Your task to perform on an android device: change timer sound Image 0: 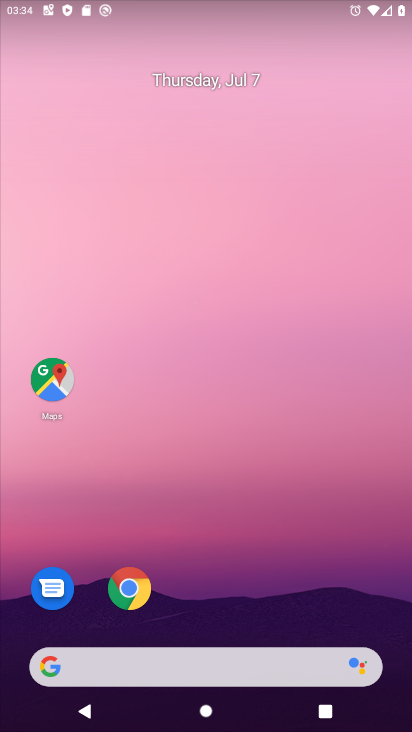
Step 0: drag from (189, 651) to (189, 296)
Your task to perform on an android device: change timer sound Image 1: 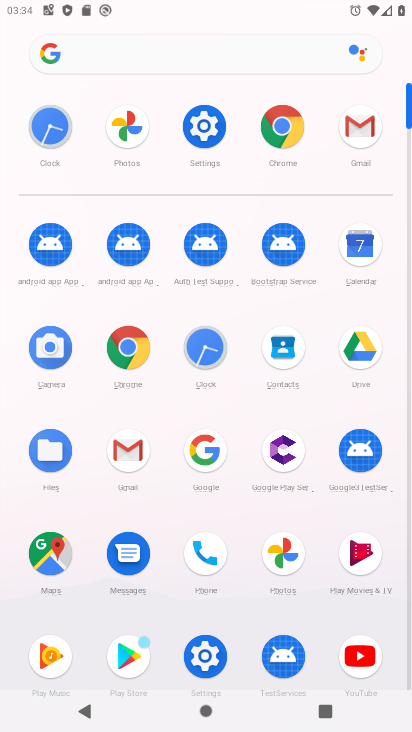
Step 1: click (207, 341)
Your task to perform on an android device: change timer sound Image 2: 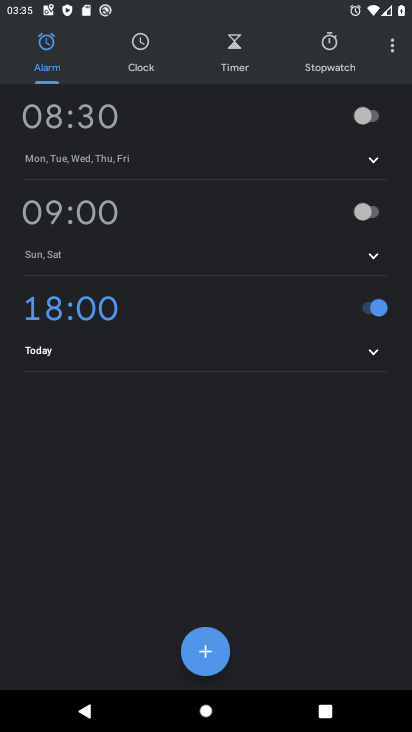
Step 2: click (389, 49)
Your task to perform on an android device: change timer sound Image 3: 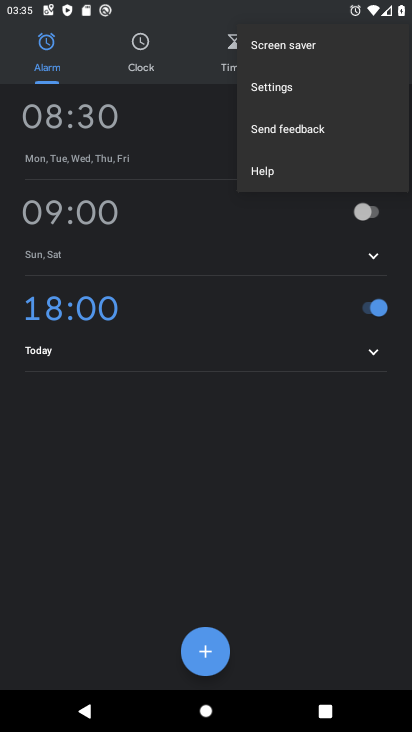
Step 3: click (288, 90)
Your task to perform on an android device: change timer sound Image 4: 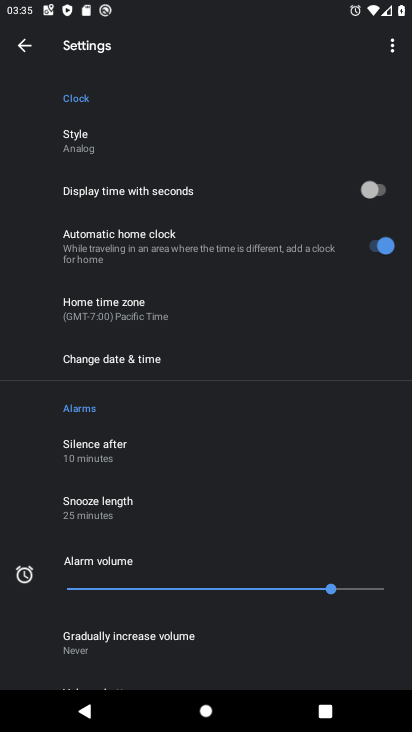
Step 4: drag from (101, 636) to (131, 249)
Your task to perform on an android device: change timer sound Image 5: 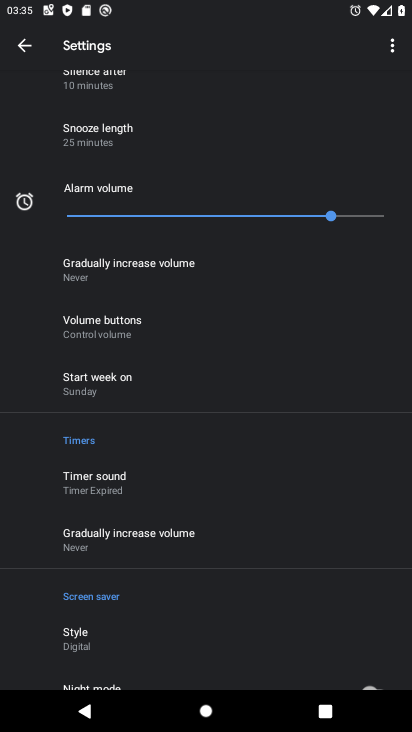
Step 5: click (95, 485)
Your task to perform on an android device: change timer sound Image 6: 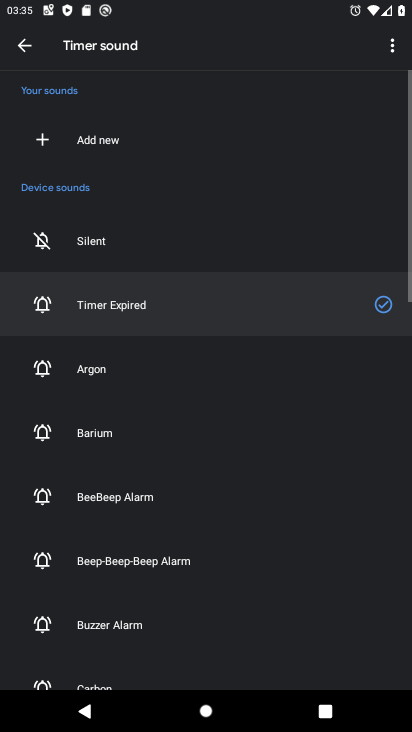
Step 6: click (100, 375)
Your task to perform on an android device: change timer sound Image 7: 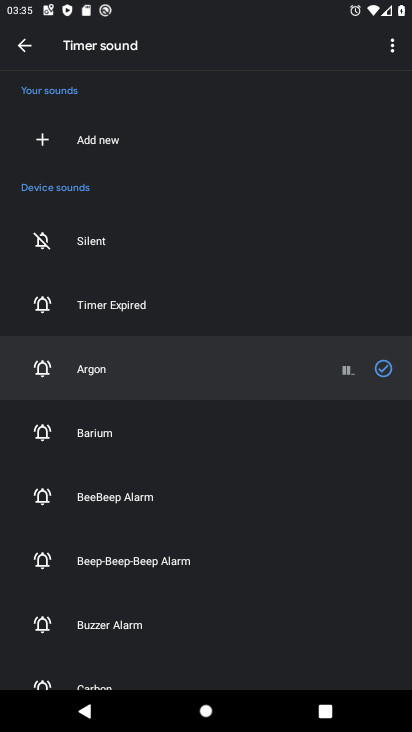
Step 7: task complete